Your task to perform on an android device: Open Amazon Image 0: 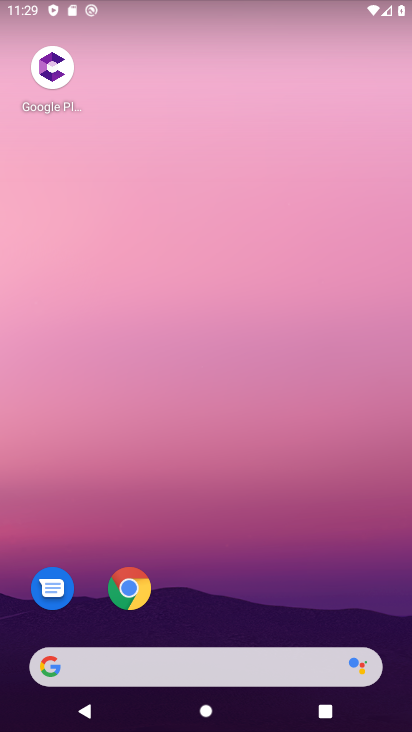
Step 0: drag from (277, 555) to (340, 130)
Your task to perform on an android device: Open Amazon Image 1: 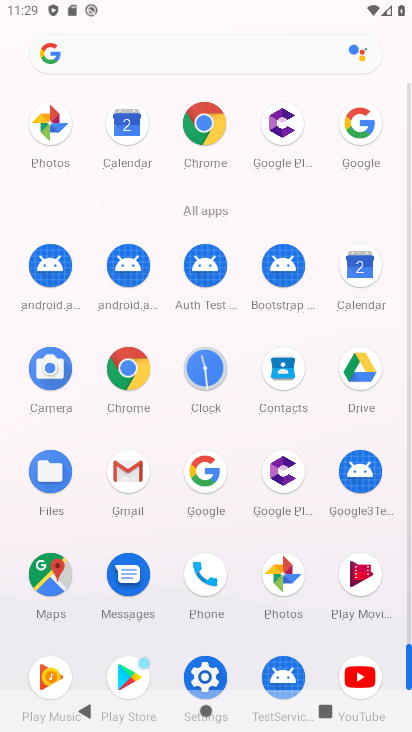
Step 1: drag from (244, 232) to (269, 0)
Your task to perform on an android device: Open Amazon Image 2: 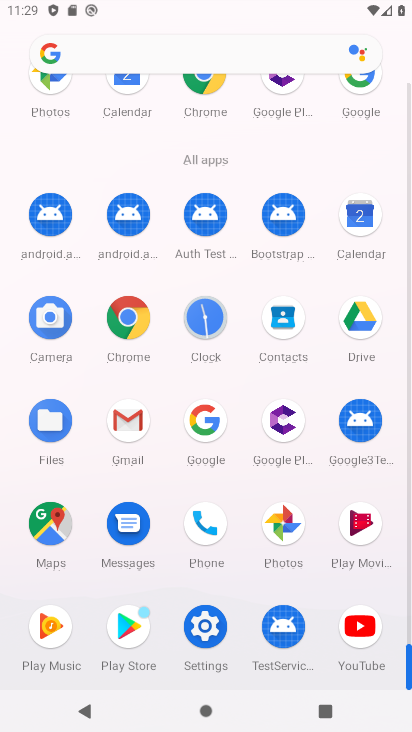
Step 2: click (139, 320)
Your task to perform on an android device: Open Amazon Image 3: 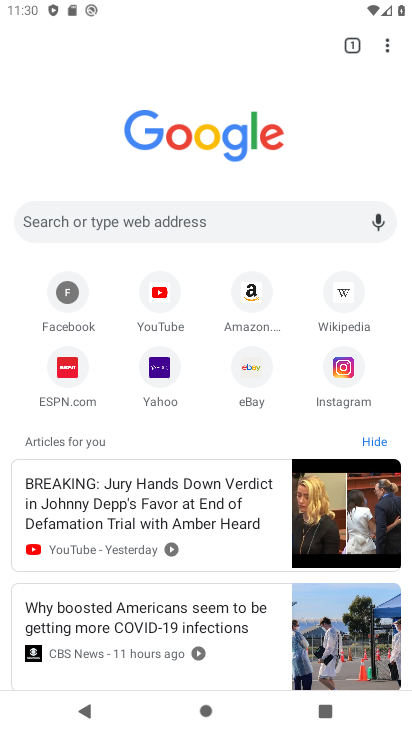
Step 3: click (248, 297)
Your task to perform on an android device: Open Amazon Image 4: 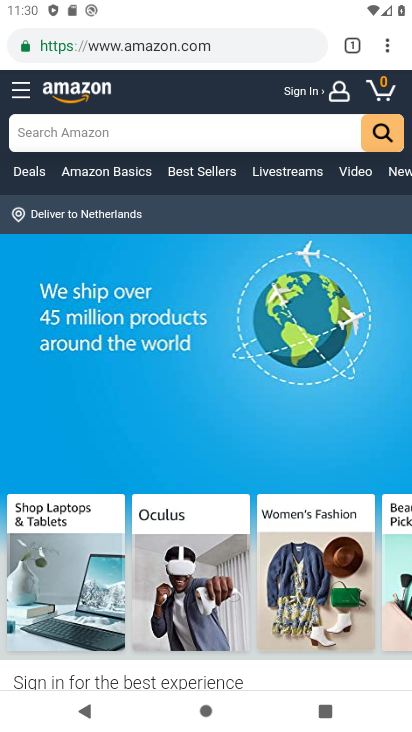
Step 4: task complete